Your task to perform on an android device: Go to calendar. Show me events next week Image 0: 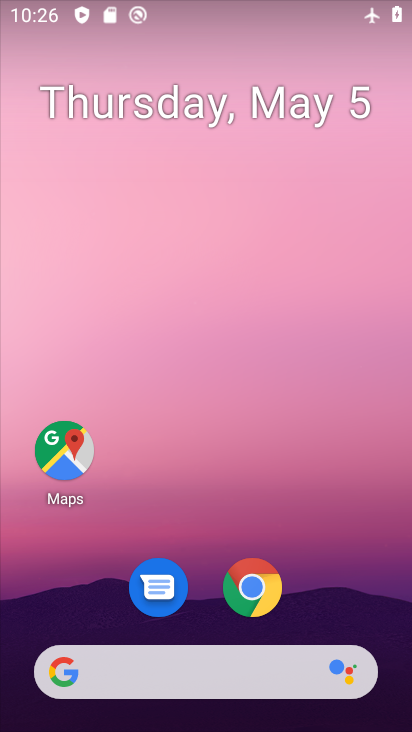
Step 0: drag from (371, 605) to (285, 67)
Your task to perform on an android device: Go to calendar. Show me events next week Image 1: 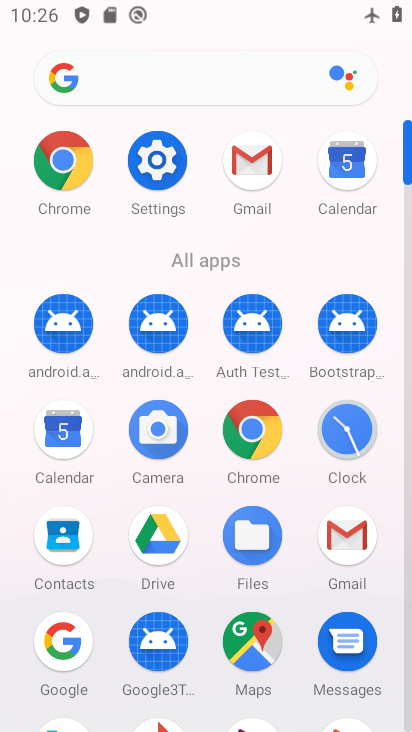
Step 1: drag from (12, 558) to (12, 223)
Your task to perform on an android device: Go to calendar. Show me events next week Image 2: 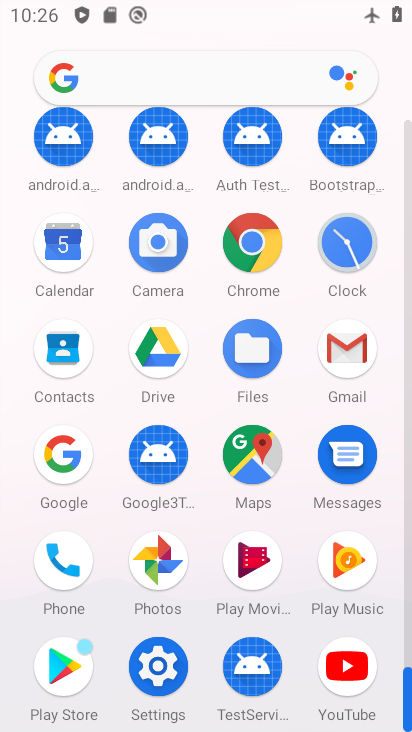
Step 2: drag from (23, 598) to (20, 265)
Your task to perform on an android device: Go to calendar. Show me events next week Image 3: 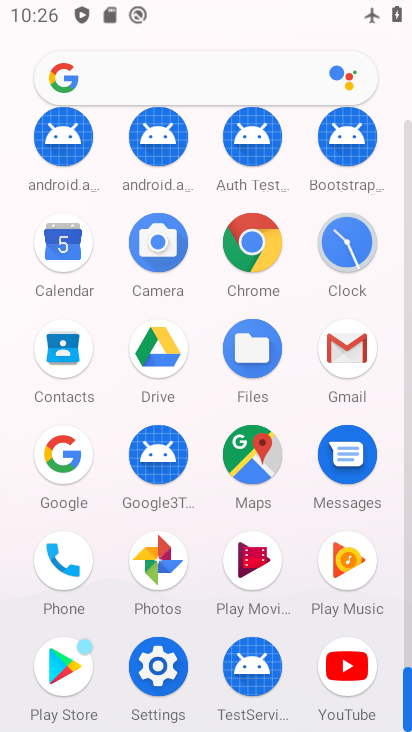
Step 3: click (62, 239)
Your task to perform on an android device: Go to calendar. Show me events next week Image 4: 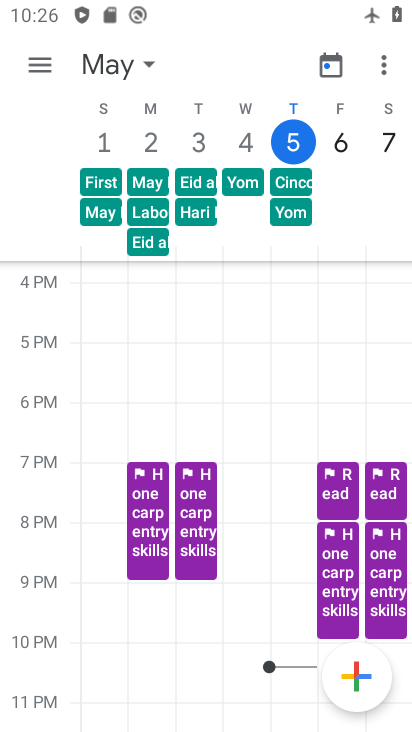
Step 4: task complete